Your task to perform on an android device: What's on my calendar today? Image 0: 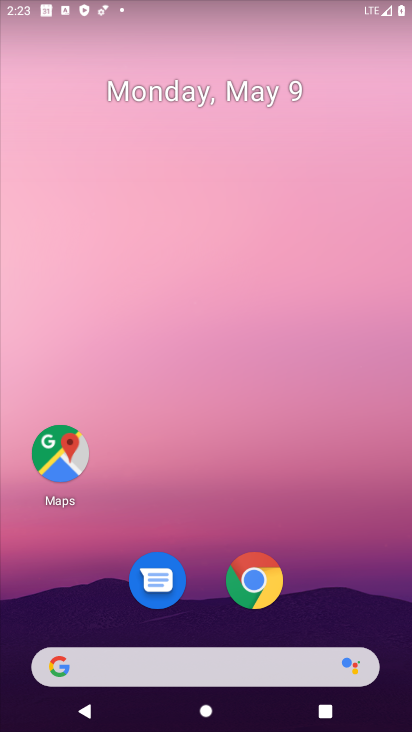
Step 0: drag from (327, 590) to (267, 187)
Your task to perform on an android device: What's on my calendar today? Image 1: 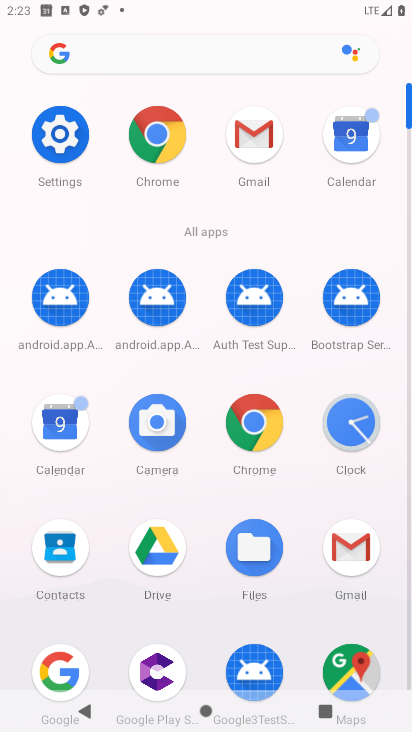
Step 1: click (66, 427)
Your task to perform on an android device: What's on my calendar today? Image 2: 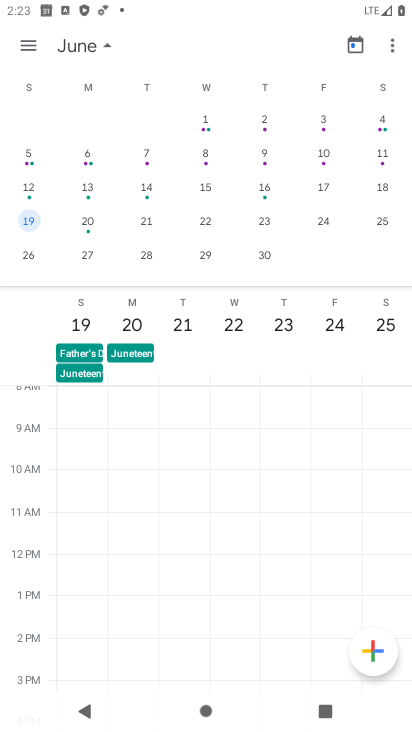
Step 2: click (29, 44)
Your task to perform on an android device: What's on my calendar today? Image 3: 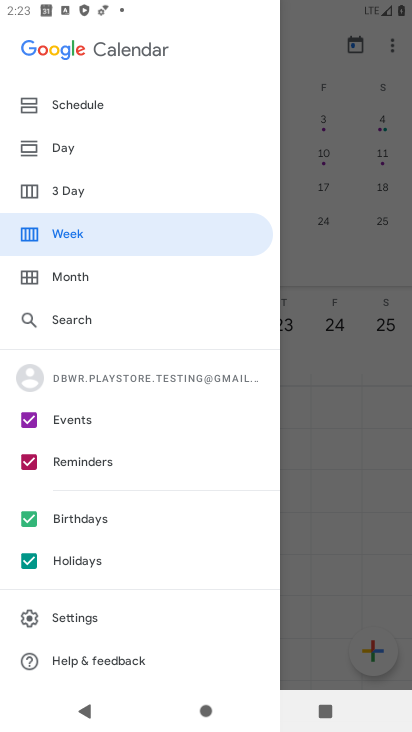
Step 3: click (56, 154)
Your task to perform on an android device: What's on my calendar today? Image 4: 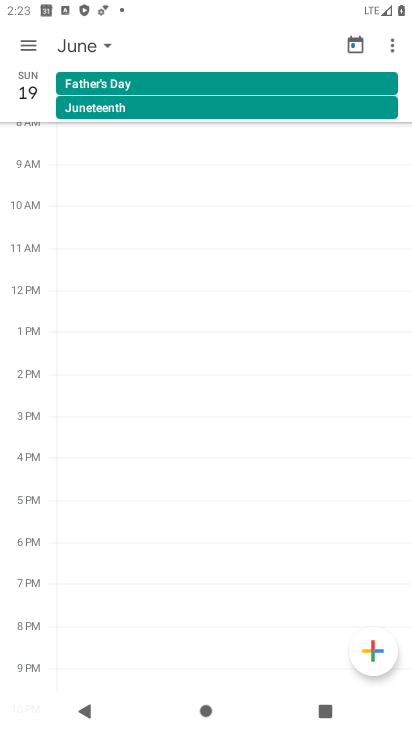
Step 4: click (97, 38)
Your task to perform on an android device: What's on my calendar today? Image 5: 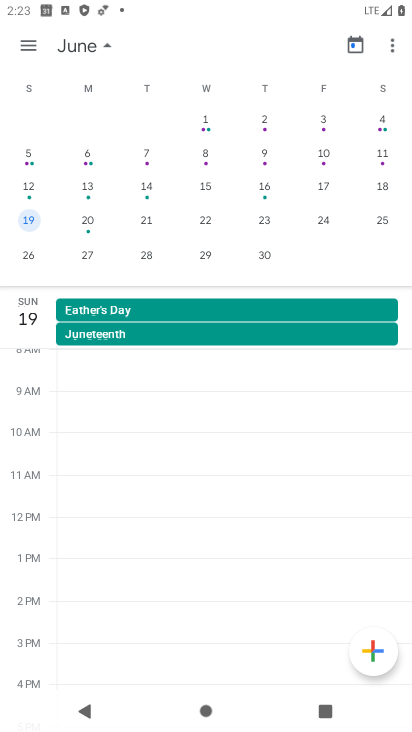
Step 5: drag from (68, 206) to (409, 209)
Your task to perform on an android device: What's on my calendar today? Image 6: 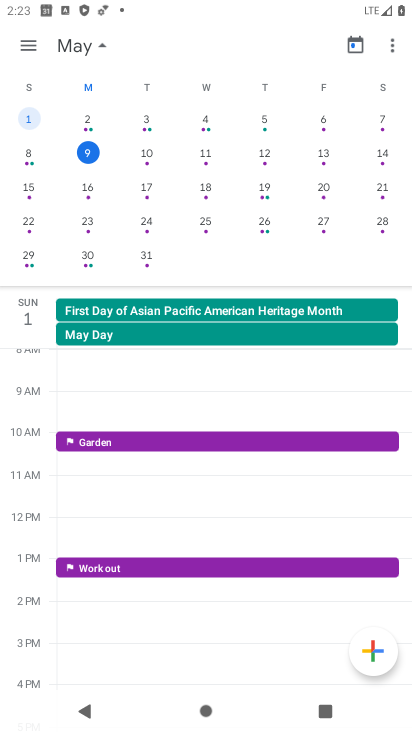
Step 6: click (90, 154)
Your task to perform on an android device: What's on my calendar today? Image 7: 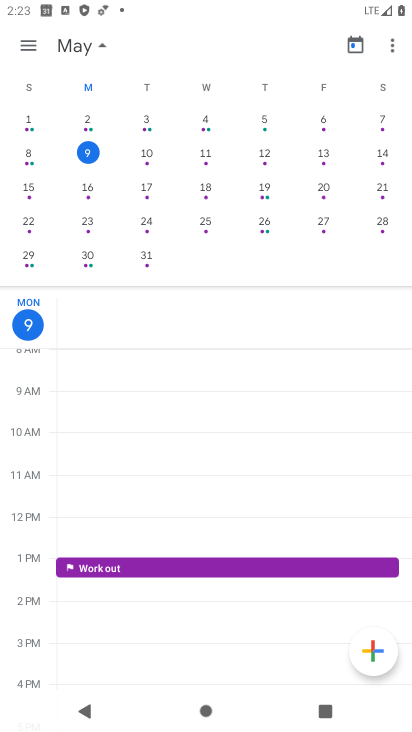
Step 7: task complete